Your task to perform on an android device: Do I have any events tomorrow? Image 0: 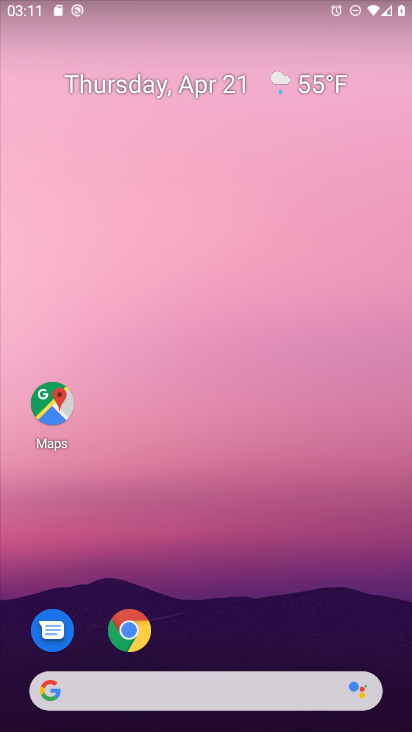
Step 0: drag from (292, 616) to (197, 29)
Your task to perform on an android device: Do I have any events tomorrow? Image 1: 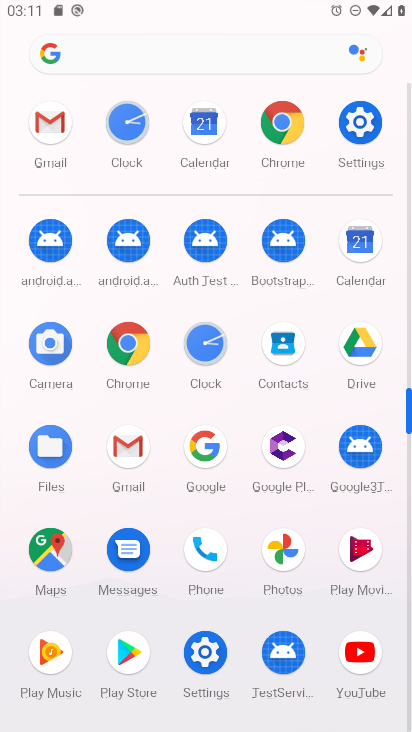
Step 1: click (352, 257)
Your task to perform on an android device: Do I have any events tomorrow? Image 2: 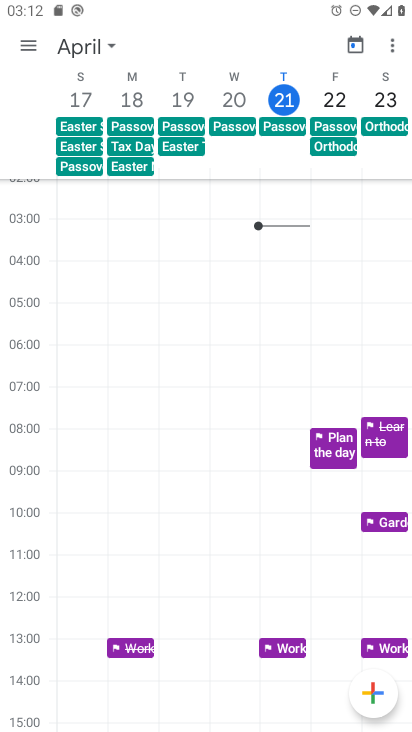
Step 2: task complete